Your task to perform on an android device: What's on the menu at In-N-Out? Image 0: 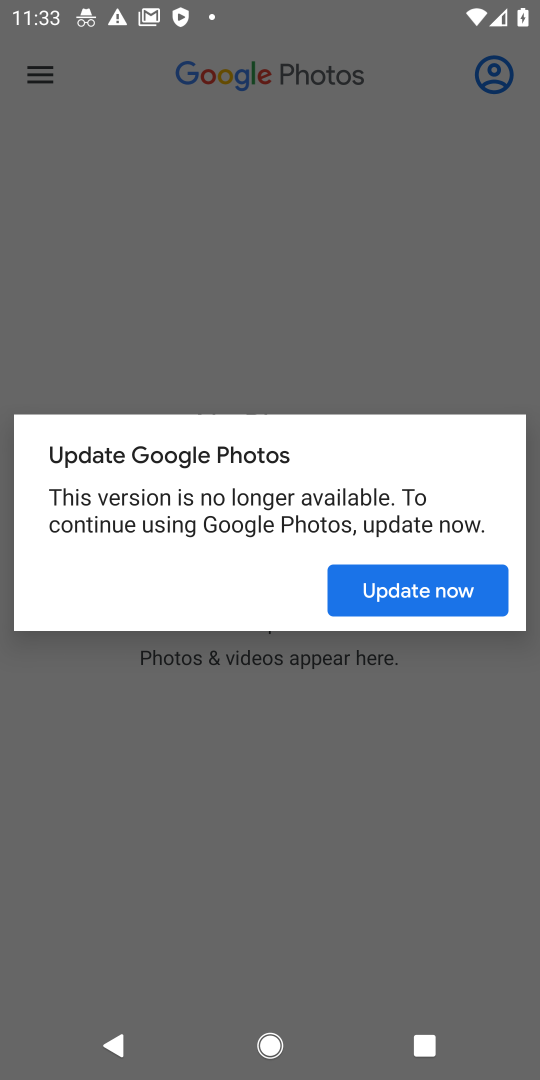
Step 0: press home button
Your task to perform on an android device: What's on the menu at In-N-Out? Image 1: 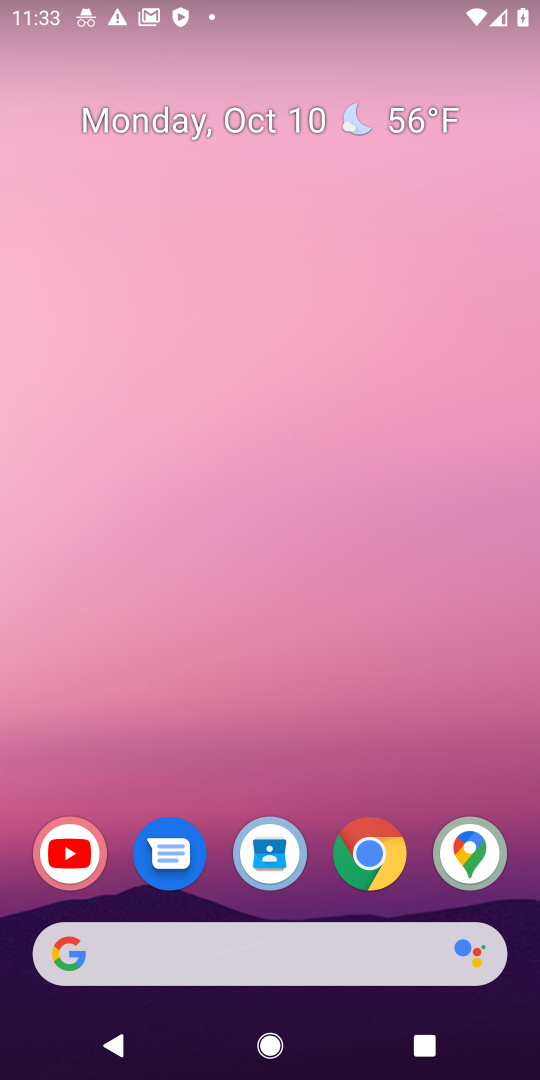
Step 1: click (246, 958)
Your task to perform on an android device: What's on the menu at In-N-Out? Image 2: 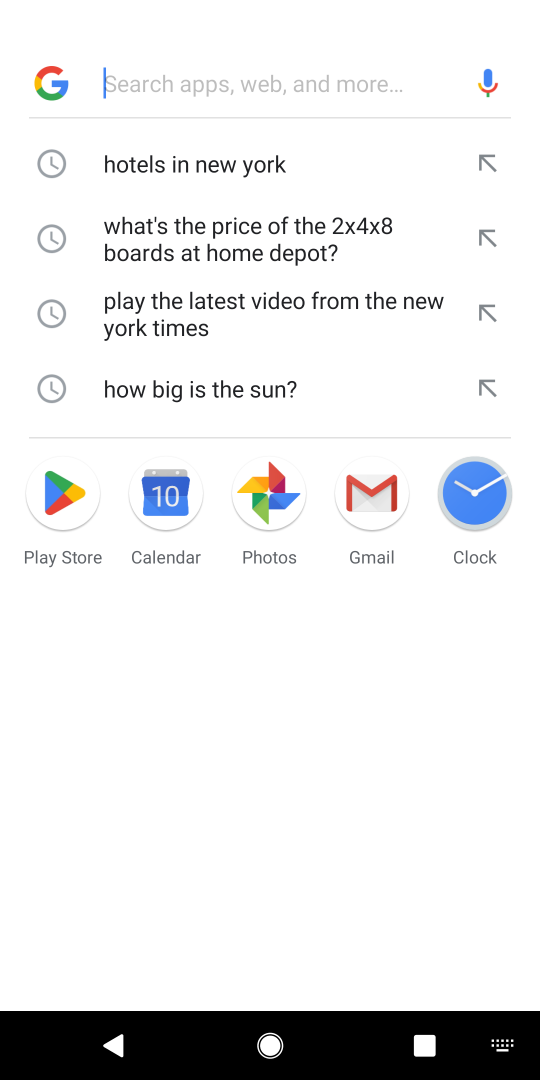
Step 2: type "What's on the menu at In-N-Out?"
Your task to perform on an android device: What's on the menu at In-N-Out? Image 3: 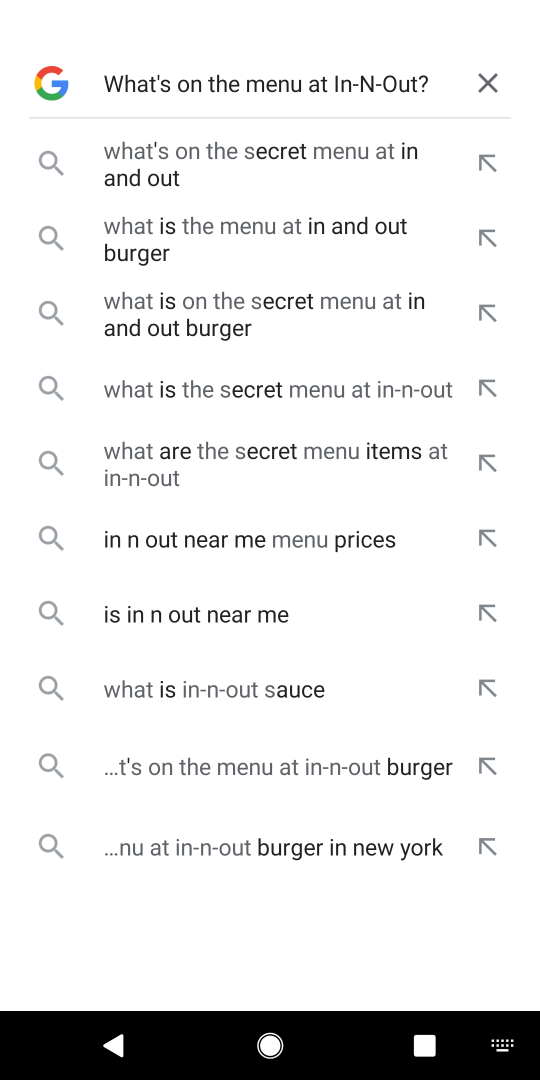
Step 3: press enter
Your task to perform on an android device: What's on the menu at In-N-Out? Image 4: 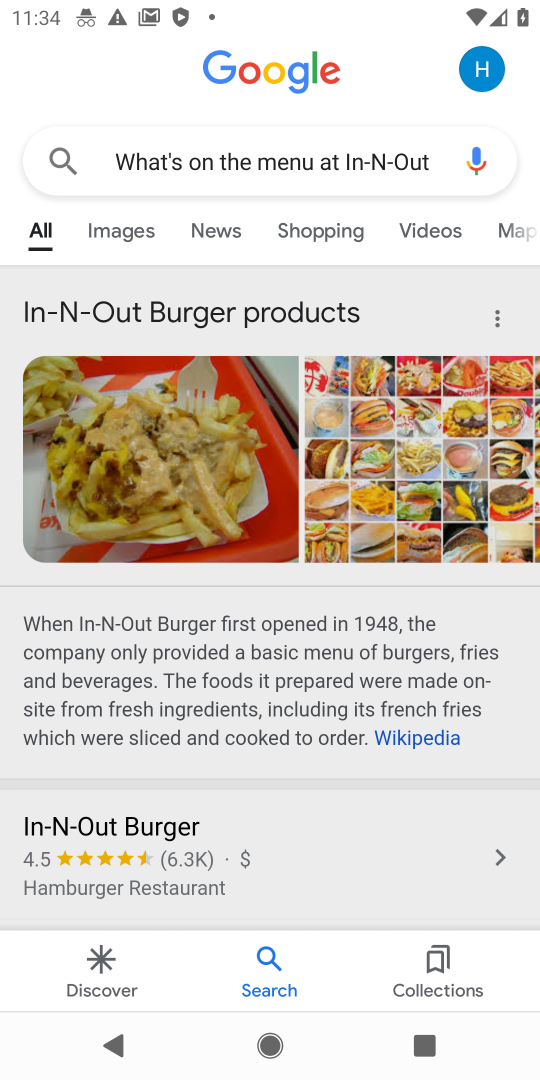
Step 4: press enter
Your task to perform on an android device: What's on the menu at In-N-Out? Image 5: 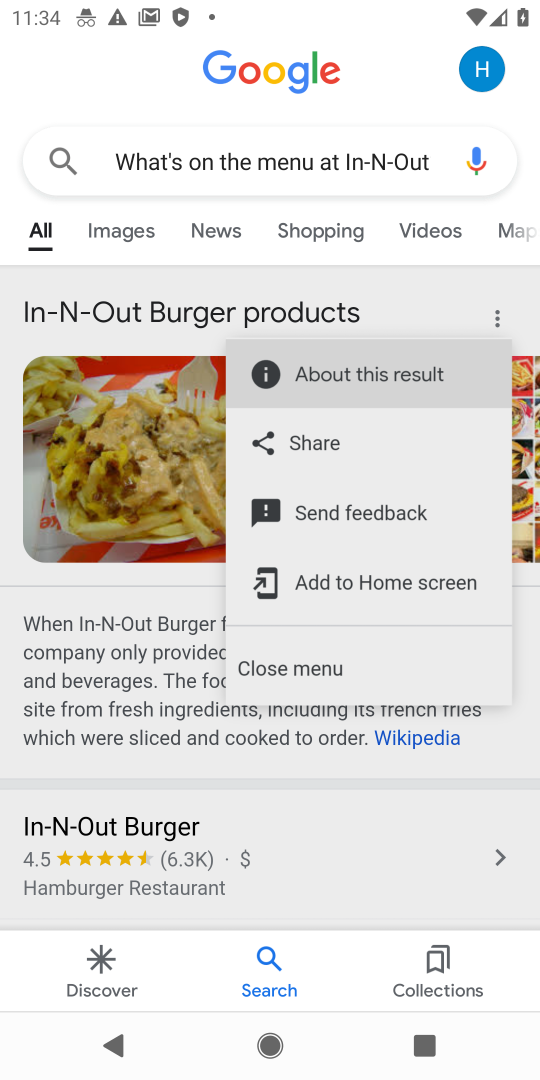
Step 5: task complete